Your task to perform on an android device: Open Google Chrome and click the shortcut for Amazon.com Image 0: 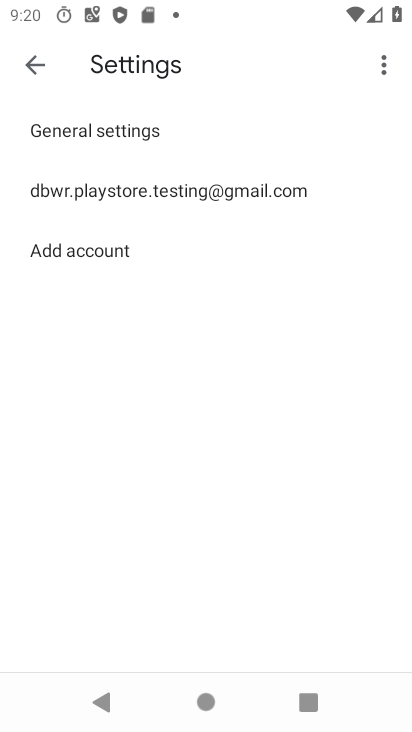
Step 0: press home button
Your task to perform on an android device: Open Google Chrome and click the shortcut for Amazon.com Image 1: 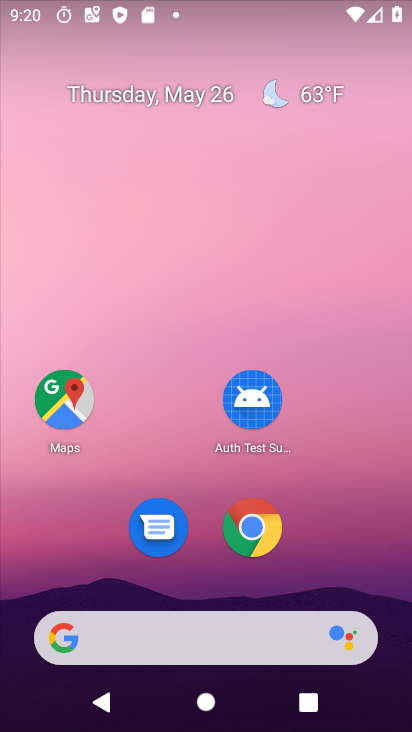
Step 1: drag from (357, 509) to (282, 10)
Your task to perform on an android device: Open Google Chrome and click the shortcut for Amazon.com Image 2: 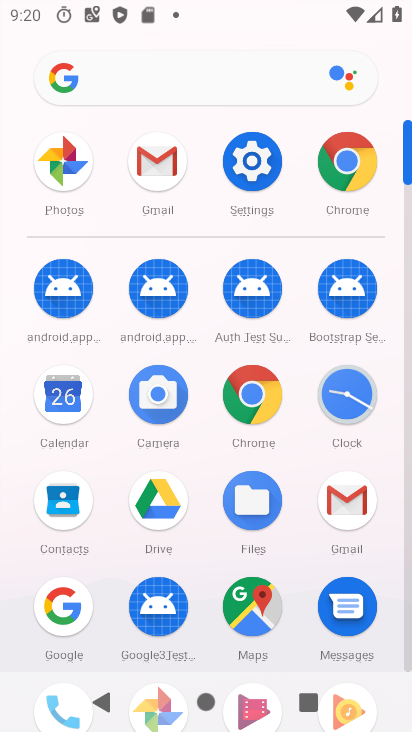
Step 2: click (332, 183)
Your task to perform on an android device: Open Google Chrome and click the shortcut for Amazon.com Image 3: 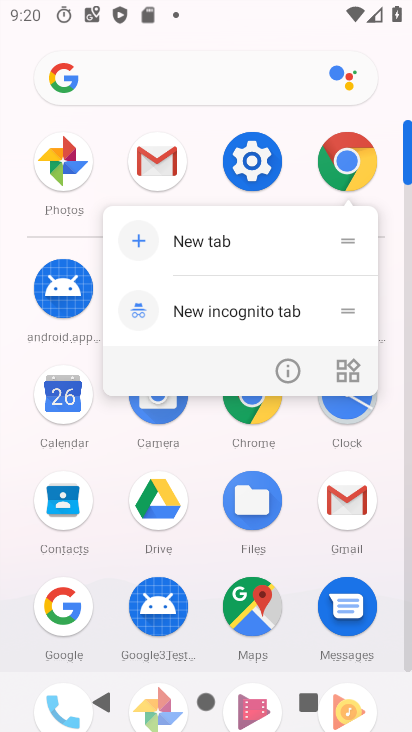
Step 3: click (331, 178)
Your task to perform on an android device: Open Google Chrome and click the shortcut for Amazon.com Image 4: 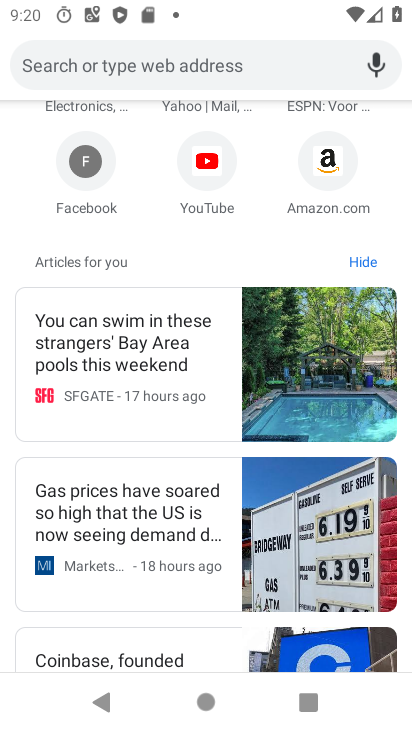
Step 4: click (319, 185)
Your task to perform on an android device: Open Google Chrome and click the shortcut for Amazon.com Image 5: 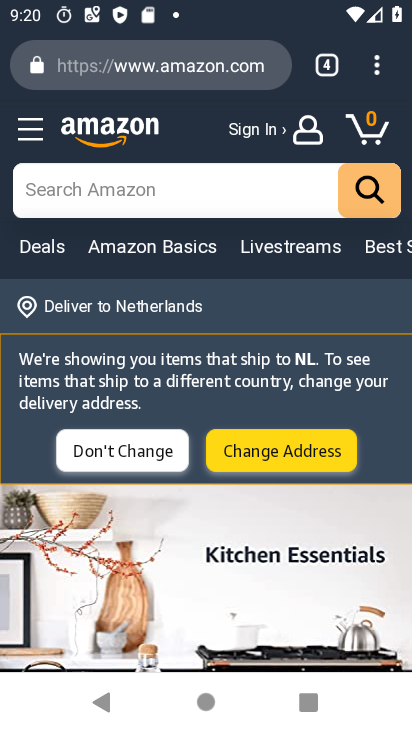
Step 5: drag from (379, 65) to (238, 603)
Your task to perform on an android device: Open Google Chrome and click the shortcut for Amazon.com Image 6: 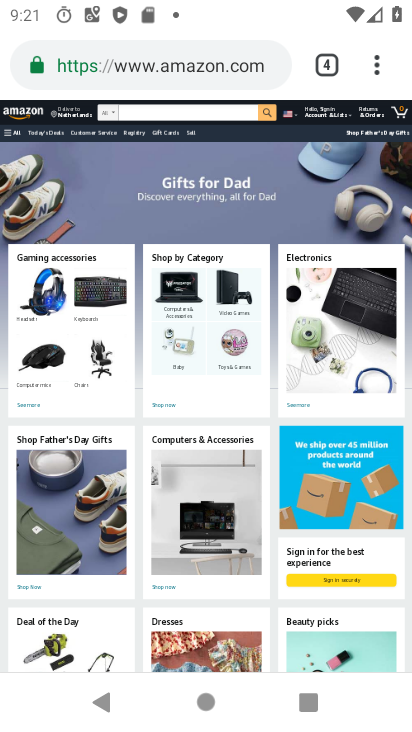
Step 6: drag from (384, 63) to (180, 519)
Your task to perform on an android device: Open Google Chrome and click the shortcut for Amazon.com Image 7: 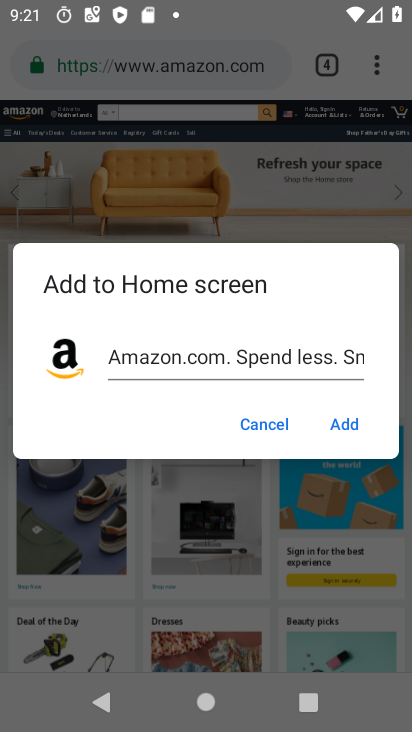
Step 7: click (345, 438)
Your task to perform on an android device: Open Google Chrome and click the shortcut for Amazon.com Image 8: 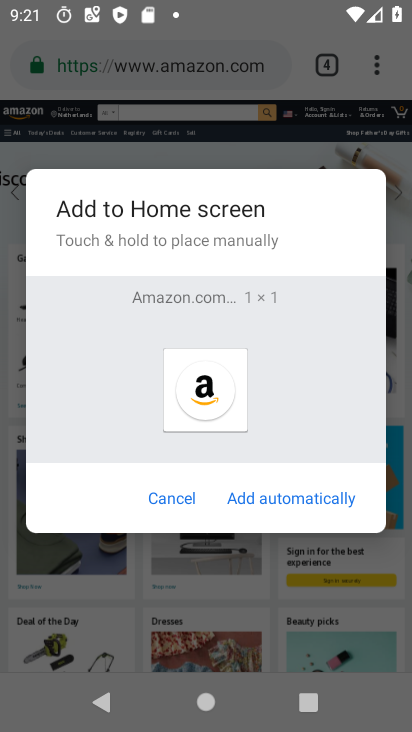
Step 8: click (312, 505)
Your task to perform on an android device: Open Google Chrome and click the shortcut for Amazon.com Image 9: 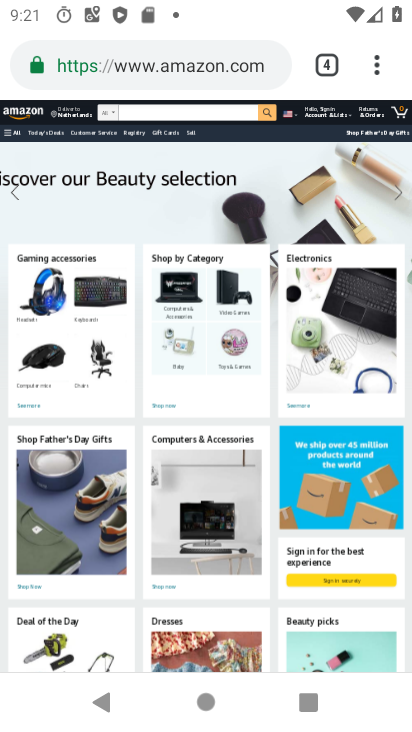
Step 9: task complete